Your task to perform on an android device: Go to Amazon Image 0: 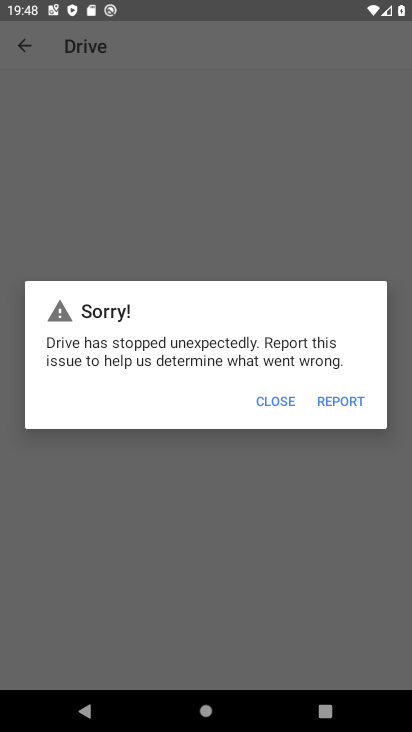
Step 0: press home button
Your task to perform on an android device: Go to Amazon Image 1: 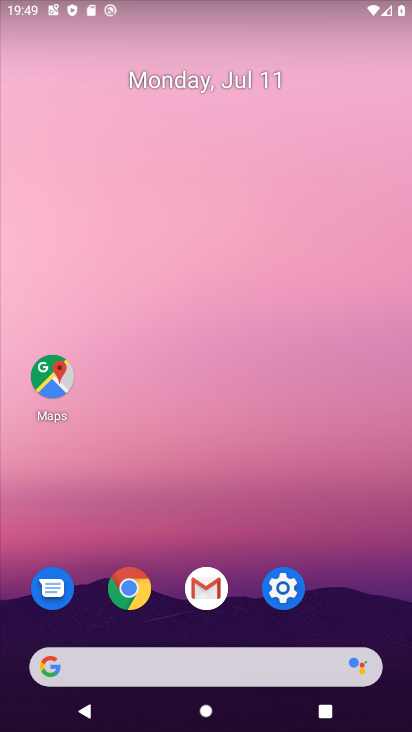
Step 1: click (141, 573)
Your task to perform on an android device: Go to Amazon Image 2: 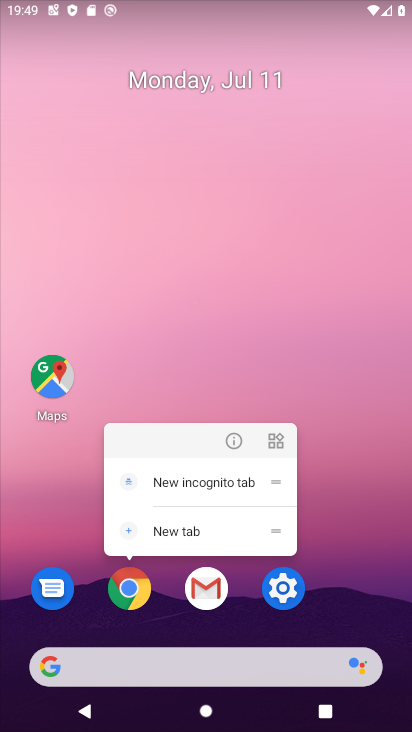
Step 2: click (134, 590)
Your task to perform on an android device: Go to Amazon Image 3: 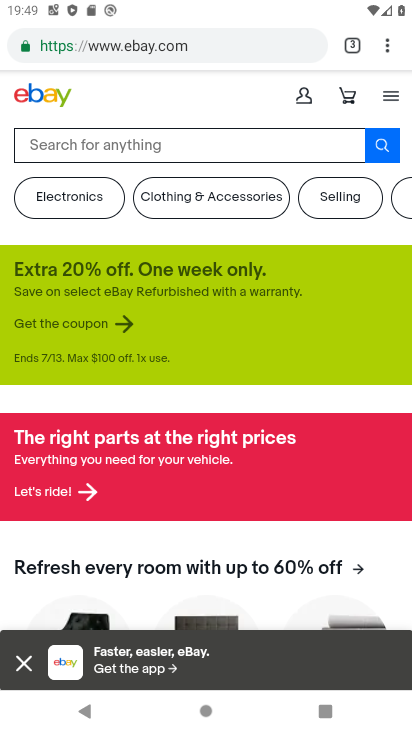
Step 3: click (350, 40)
Your task to perform on an android device: Go to Amazon Image 4: 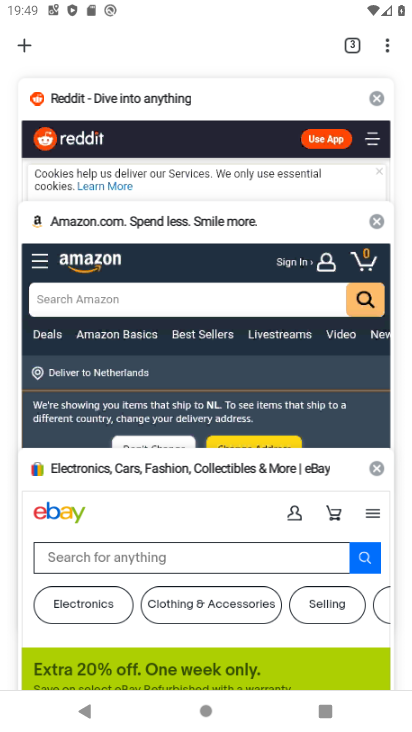
Step 4: click (35, 43)
Your task to perform on an android device: Go to Amazon Image 5: 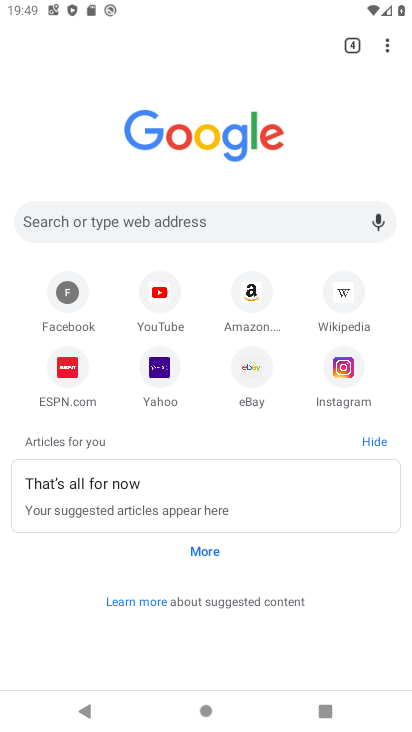
Step 5: click (245, 300)
Your task to perform on an android device: Go to Amazon Image 6: 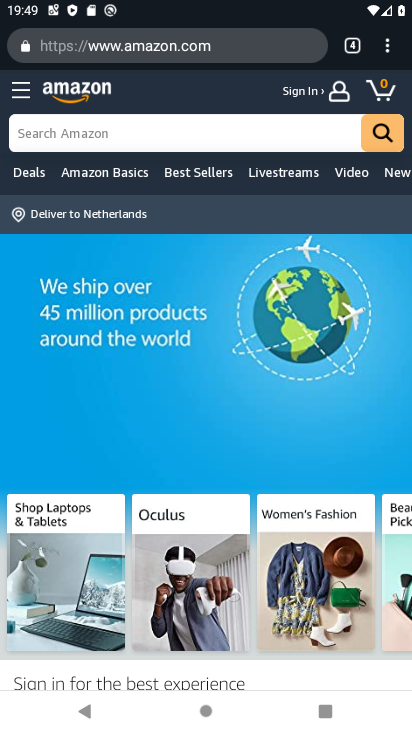
Step 6: task complete